Your task to perform on an android device: Open calendar and show me the fourth week of next month Image 0: 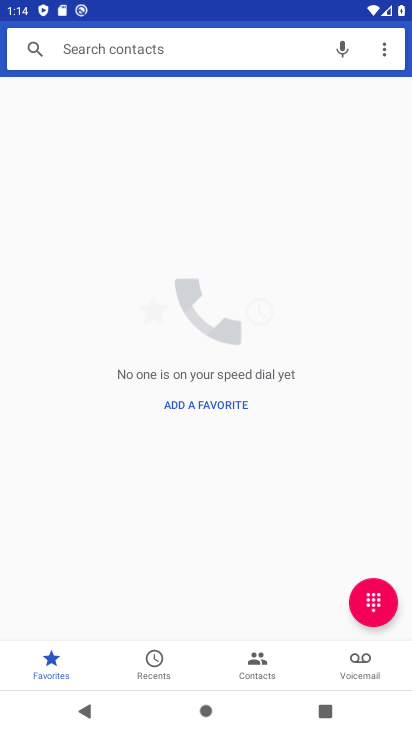
Step 0: press home button
Your task to perform on an android device: Open calendar and show me the fourth week of next month Image 1: 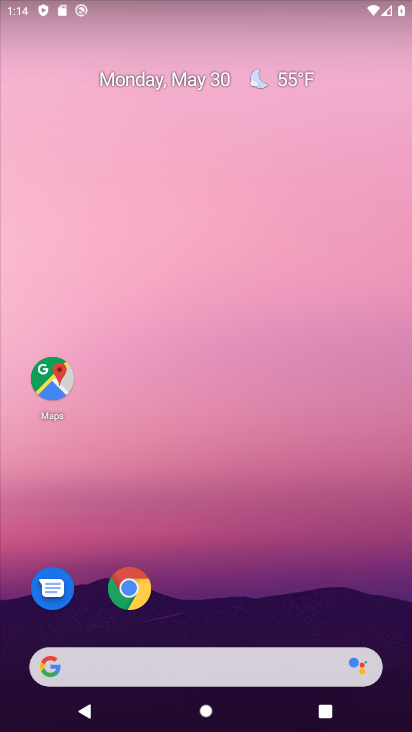
Step 1: drag from (368, 551) to (297, 238)
Your task to perform on an android device: Open calendar and show me the fourth week of next month Image 2: 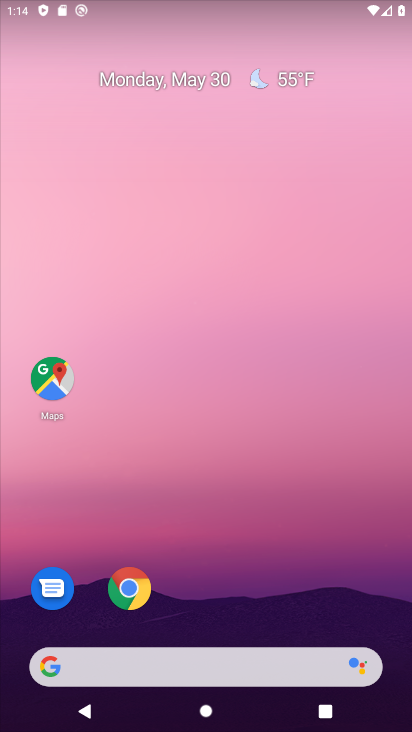
Step 2: drag from (376, 614) to (260, 159)
Your task to perform on an android device: Open calendar and show me the fourth week of next month Image 3: 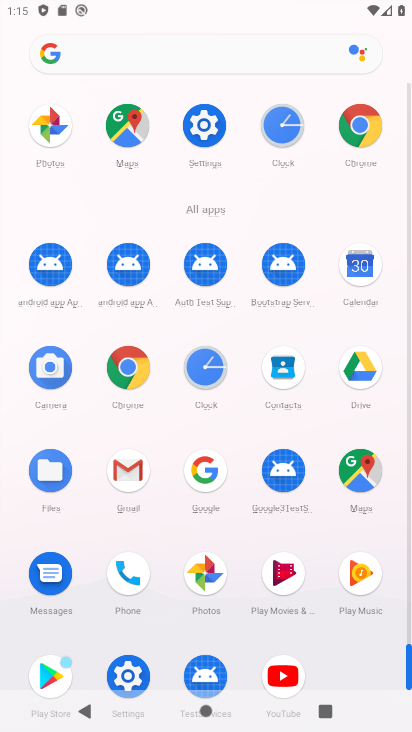
Step 3: click (360, 266)
Your task to perform on an android device: Open calendar and show me the fourth week of next month Image 4: 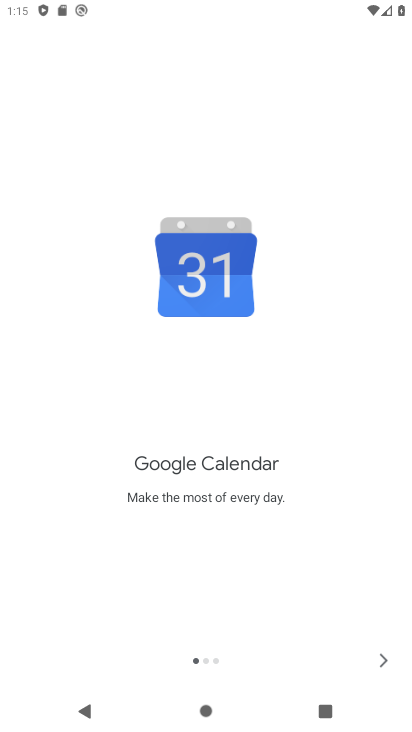
Step 4: click (384, 655)
Your task to perform on an android device: Open calendar and show me the fourth week of next month Image 5: 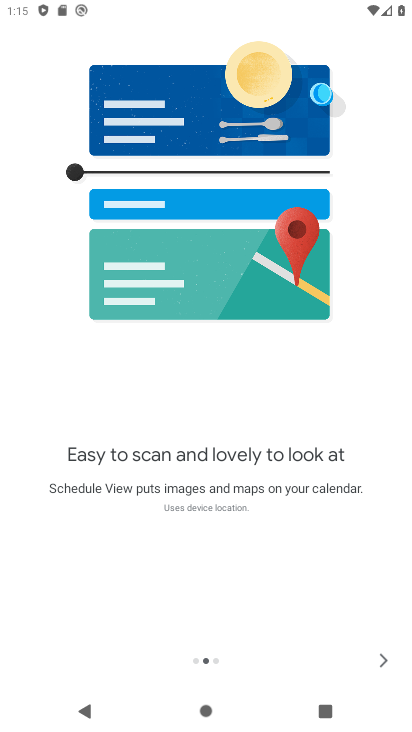
Step 5: click (384, 655)
Your task to perform on an android device: Open calendar and show me the fourth week of next month Image 6: 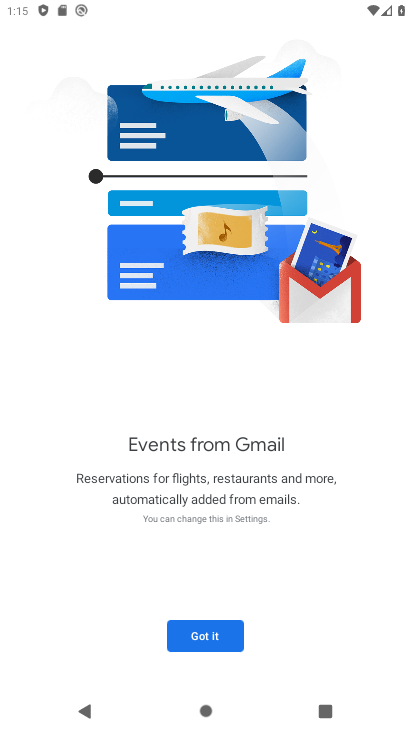
Step 6: click (202, 637)
Your task to perform on an android device: Open calendar and show me the fourth week of next month Image 7: 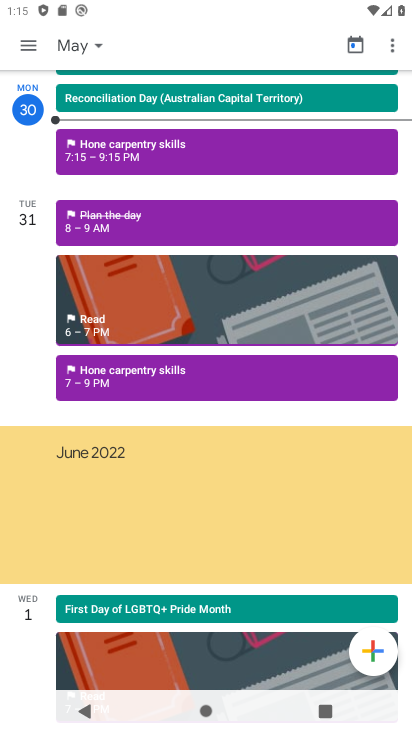
Step 7: click (27, 51)
Your task to perform on an android device: Open calendar and show me the fourth week of next month Image 8: 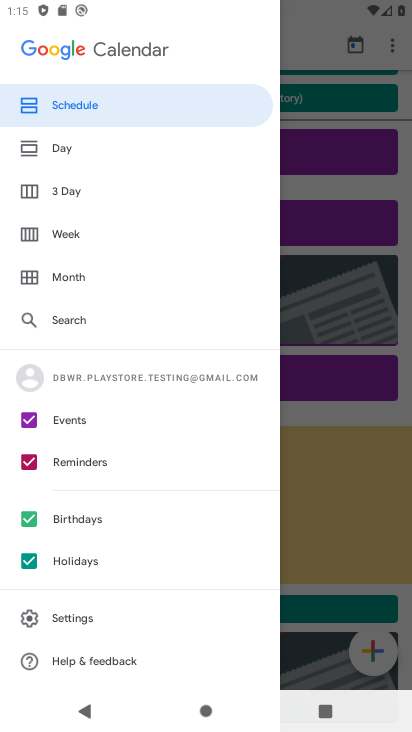
Step 8: click (57, 230)
Your task to perform on an android device: Open calendar and show me the fourth week of next month Image 9: 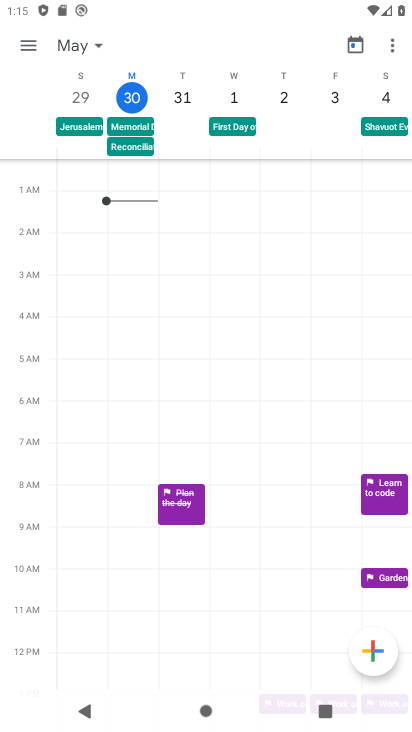
Step 9: click (99, 40)
Your task to perform on an android device: Open calendar and show me the fourth week of next month Image 10: 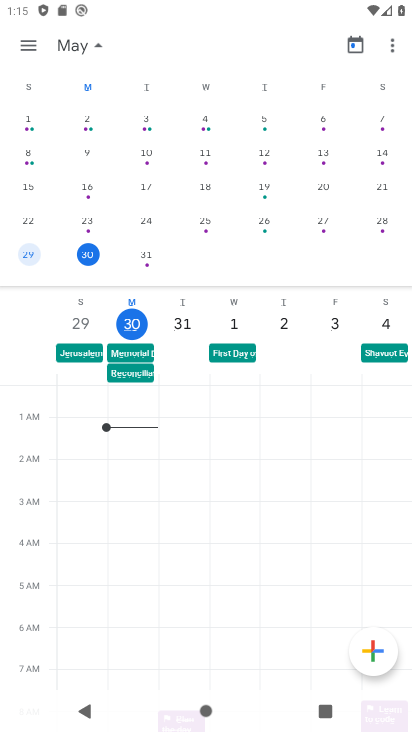
Step 10: drag from (380, 191) to (76, 158)
Your task to perform on an android device: Open calendar and show me the fourth week of next month Image 11: 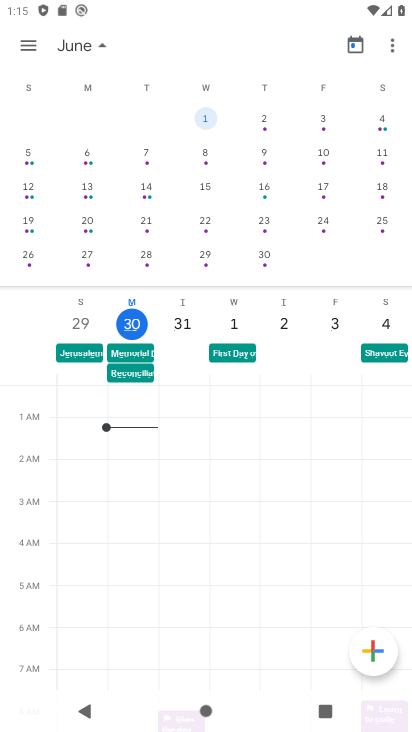
Step 11: click (24, 258)
Your task to perform on an android device: Open calendar and show me the fourth week of next month Image 12: 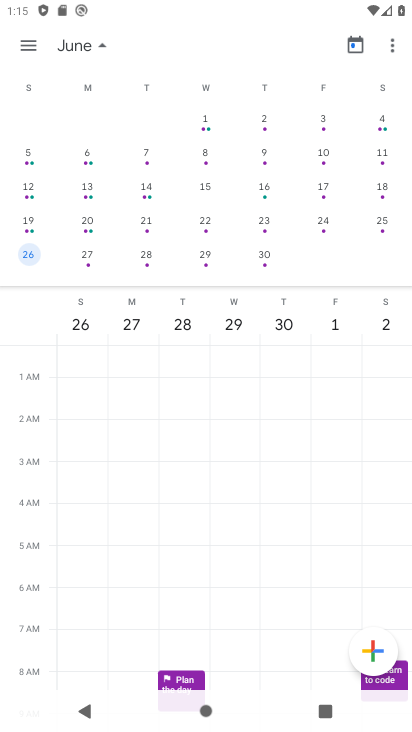
Step 12: task complete